Your task to perform on an android device: Go to settings Image 0: 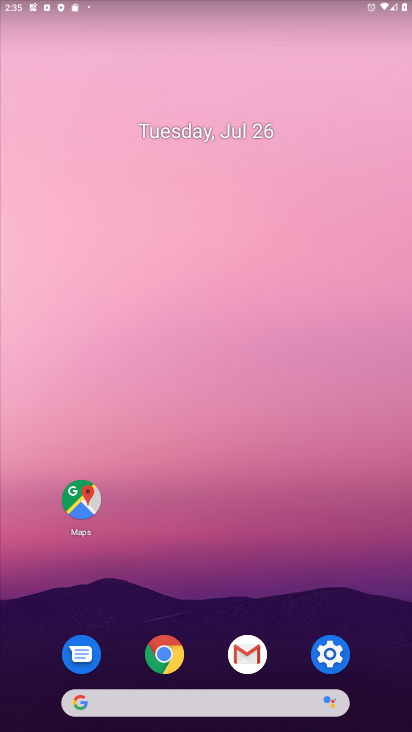
Step 0: click (321, 660)
Your task to perform on an android device: Go to settings Image 1: 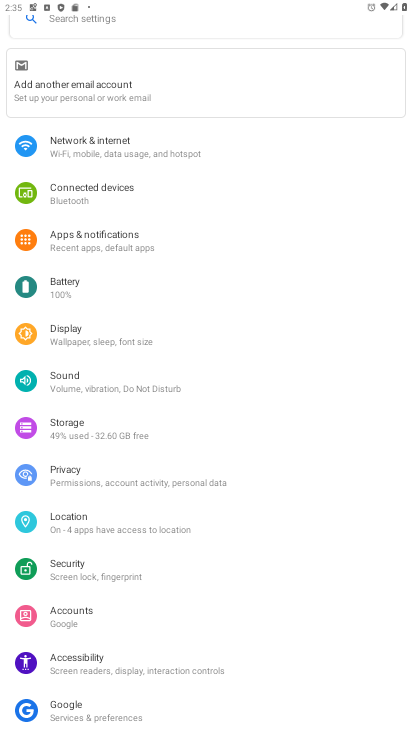
Step 1: task complete